Your task to perform on an android device: Open my contact list Image 0: 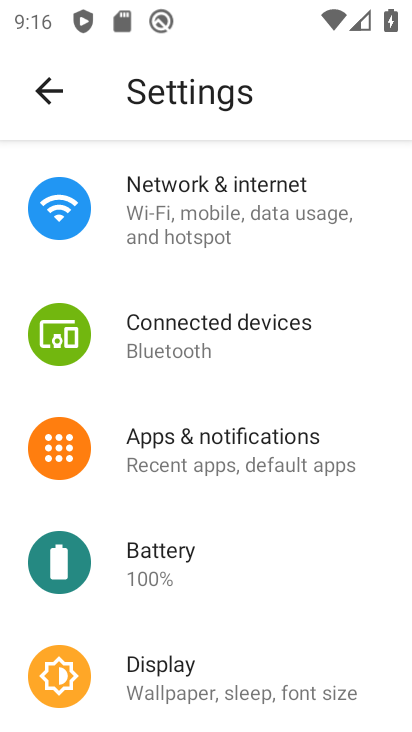
Step 0: press home button
Your task to perform on an android device: Open my contact list Image 1: 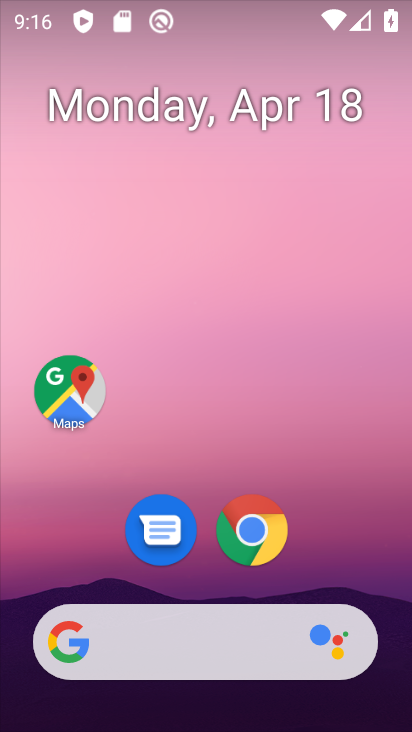
Step 1: drag from (388, 592) to (304, 101)
Your task to perform on an android device: Open my contact list Image 2: 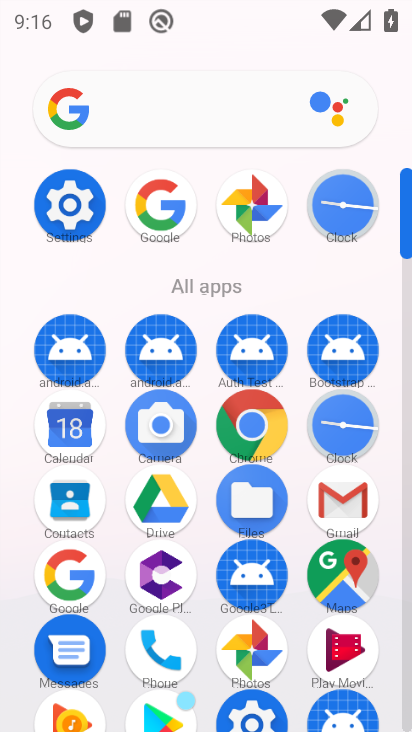
Step 2: drag from (411, 579) to (410, 534)
Your task to perform on an android device: Open my contact list Image 3: 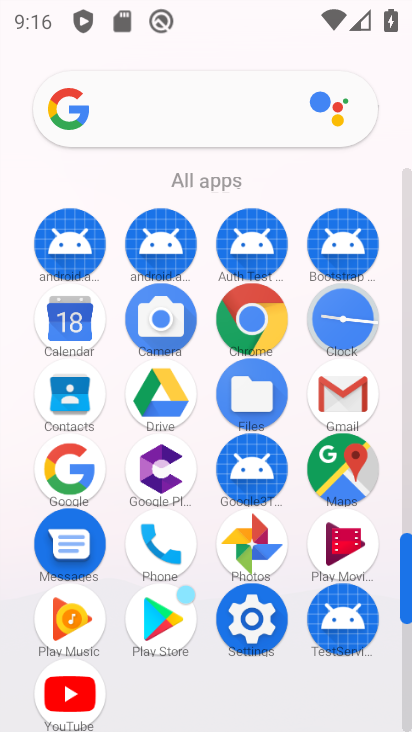
Step 3: click (63, 398)
Your task to perform on an android device: Open my contact list Image 4: 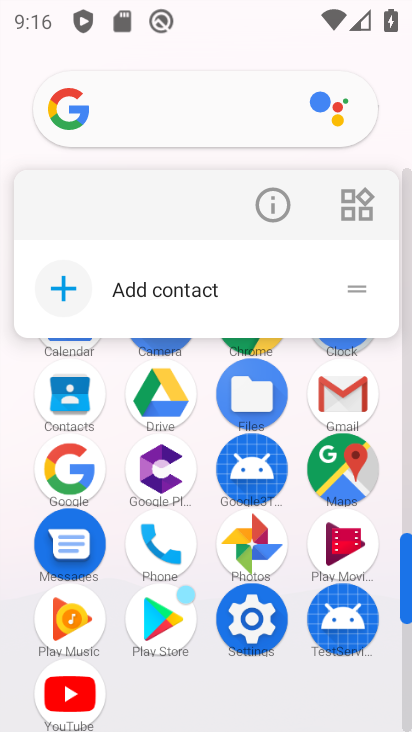
Step 4: click (67, 395)
Your task to perform on an android device: Open my contact list Image 5: 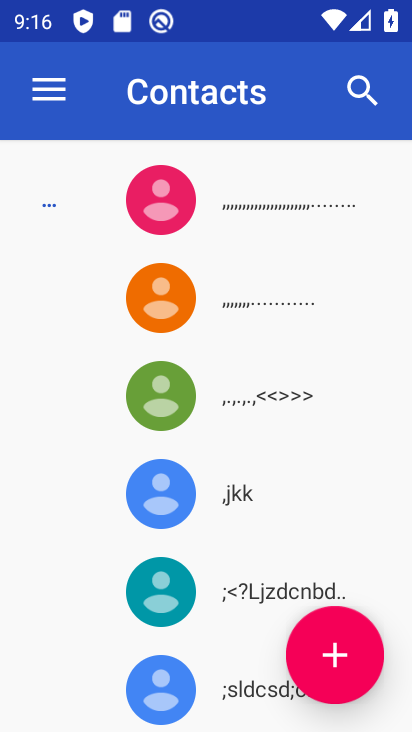
Step 5: task complete